Your task to perform on an android device: check the backup settings in the google photos Image 0: 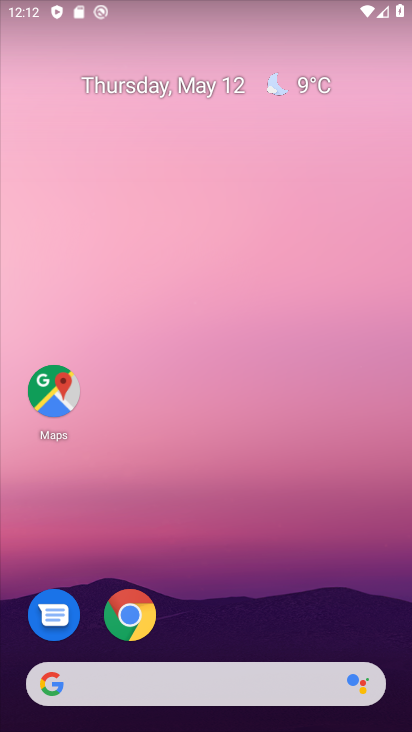
Step 0: drag from (247, 556) to (226, 28)
Your task to perform on an android device: check the backup settings in the google photos Image 1: 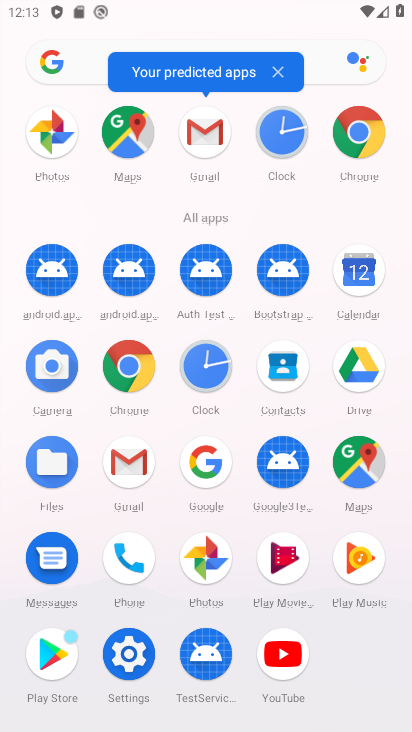
Step 1: click (50, 132)
Your task to perform on an android device: check the backup settings in the google photos Image 2: 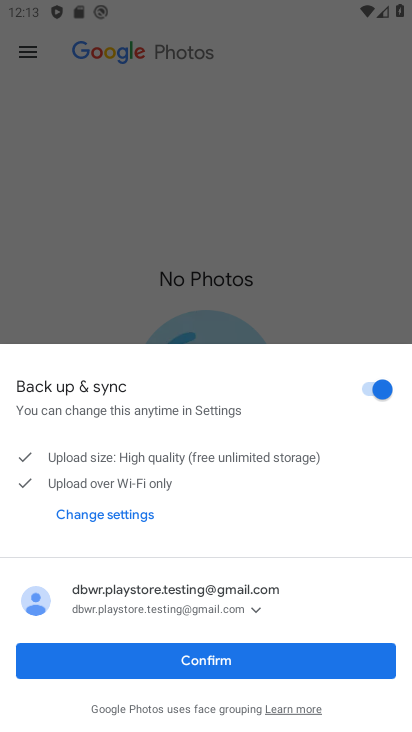
Step 2: click (210, 668)
Your task to perform on an android device: check the backup settings in the google photos Image 3: 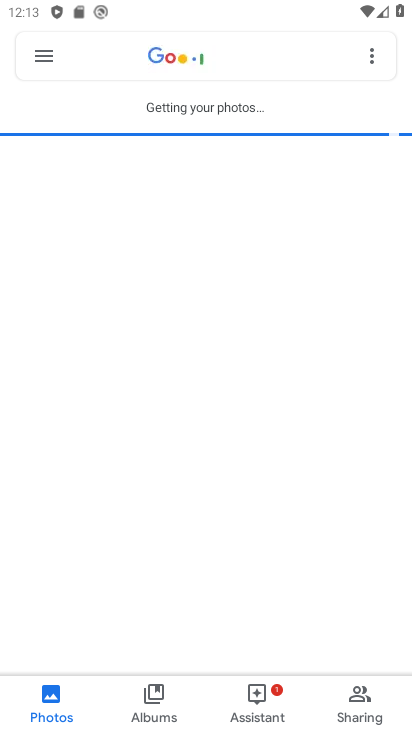
Step 3: click (46, 58)
Your task to perform on an android device: check the backup settings in the google photos Image 4: 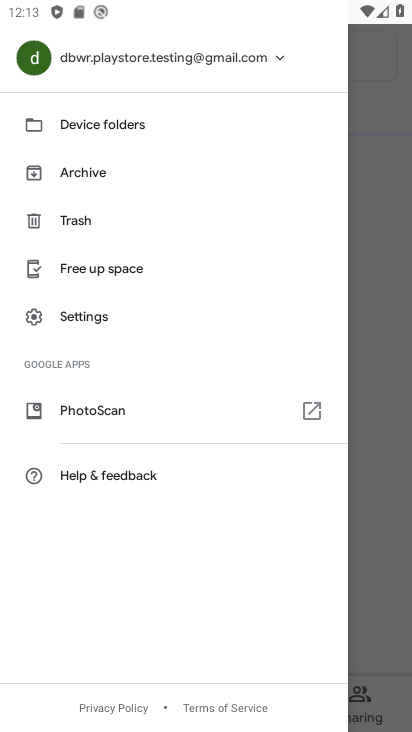
Step 4: click (91, 321)
Your task to perform on an android device: check the backup settings in the google photos Image 5: 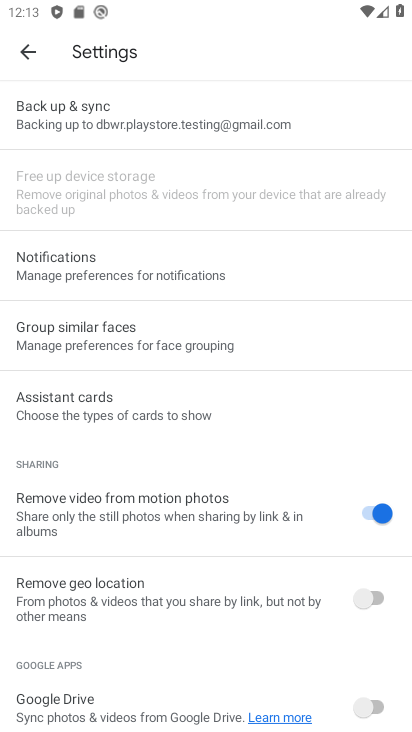
Step 5: click (96, 121)
Your task to perform on an android device: check the backup settings in the google photos Image 6: 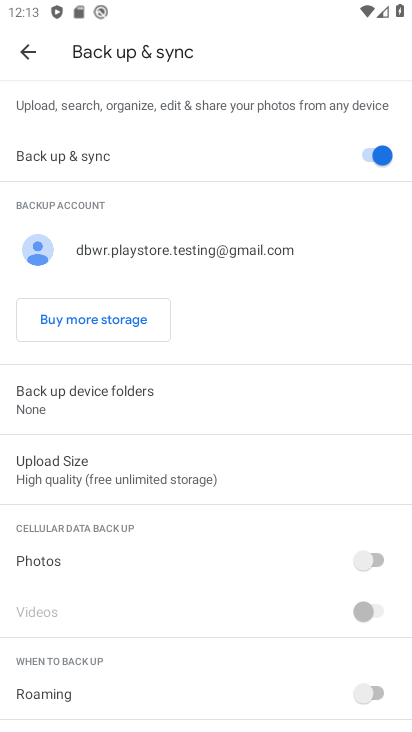
Step 6: task complete